Your task to perform on an android device: refresh tabs in the chrome app Image 0: 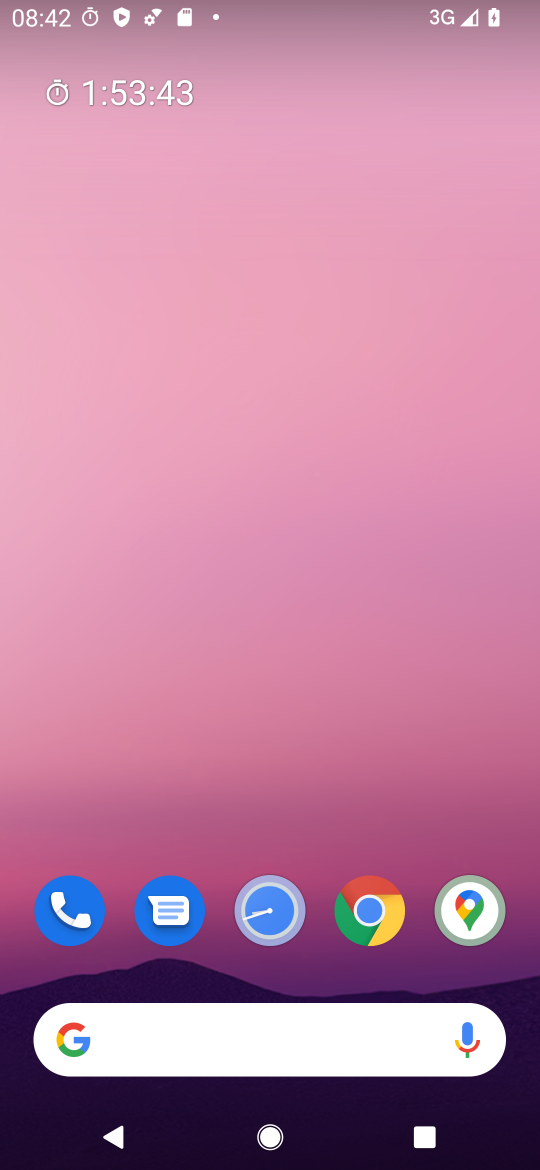
Step 0: drag from (236, 1008) to (304, 85)
Your task to perform on an android device: refresh tabs in the chrome app Image 1: 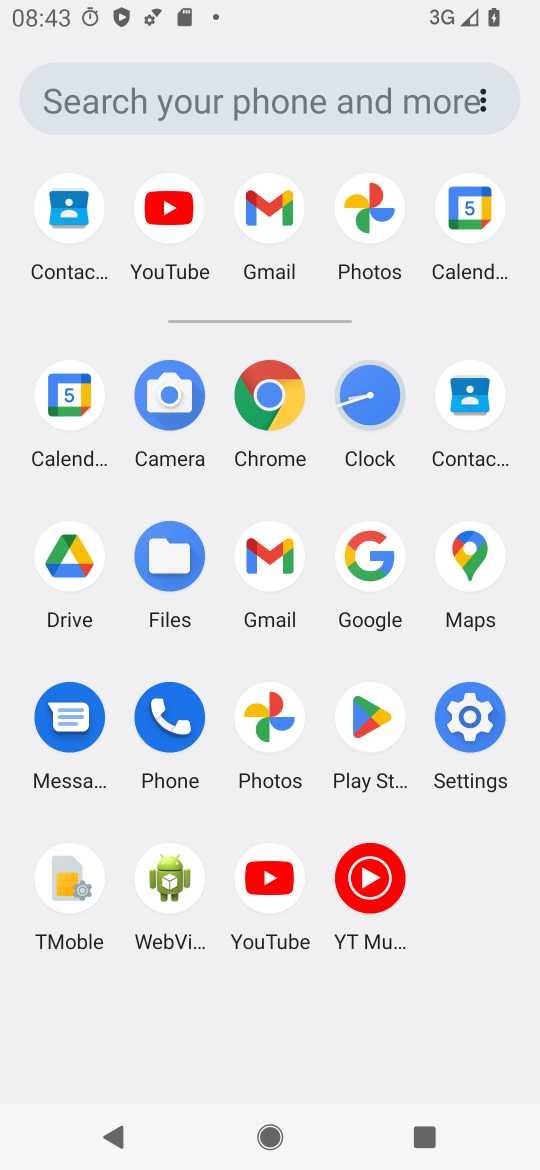
Step 1: click (272, 393)
Your task to perform on an android device: refresh tabs in the chrome app Image 2: 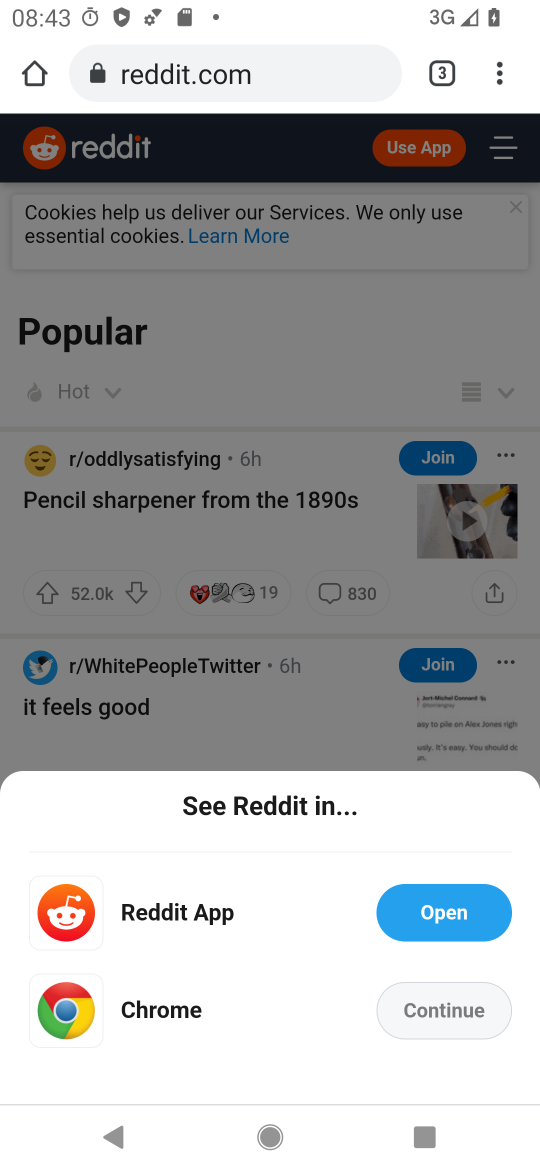
Step 2: click (491, 71)
Your task to perform on an android device: refresh tabs in the chrome app Image 3: 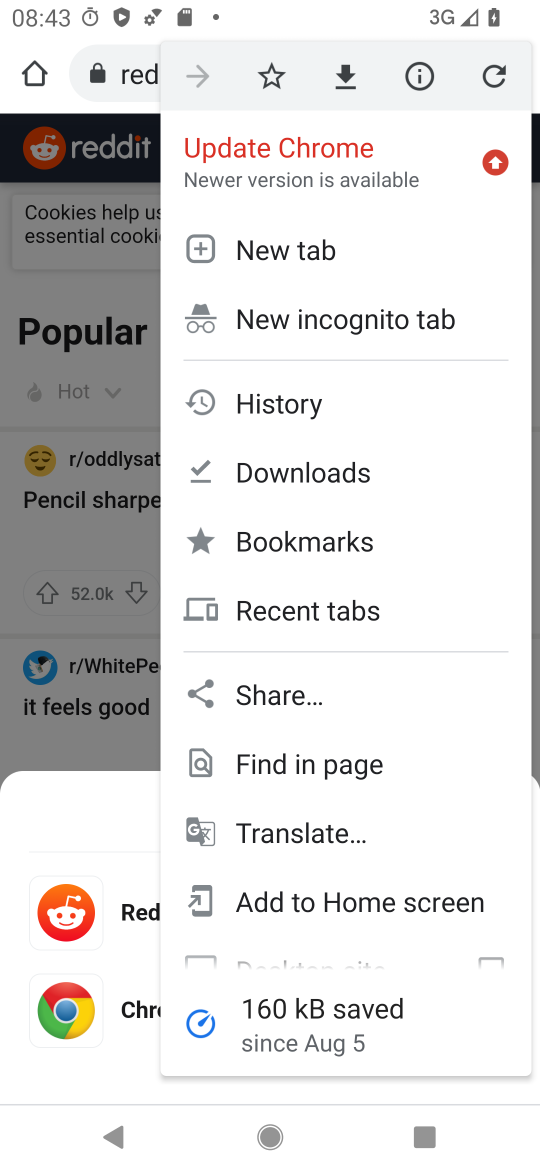
Step 3: click (488, 82)
Your task to perform on an android device: refresh tabs in the chrome app Image 4: 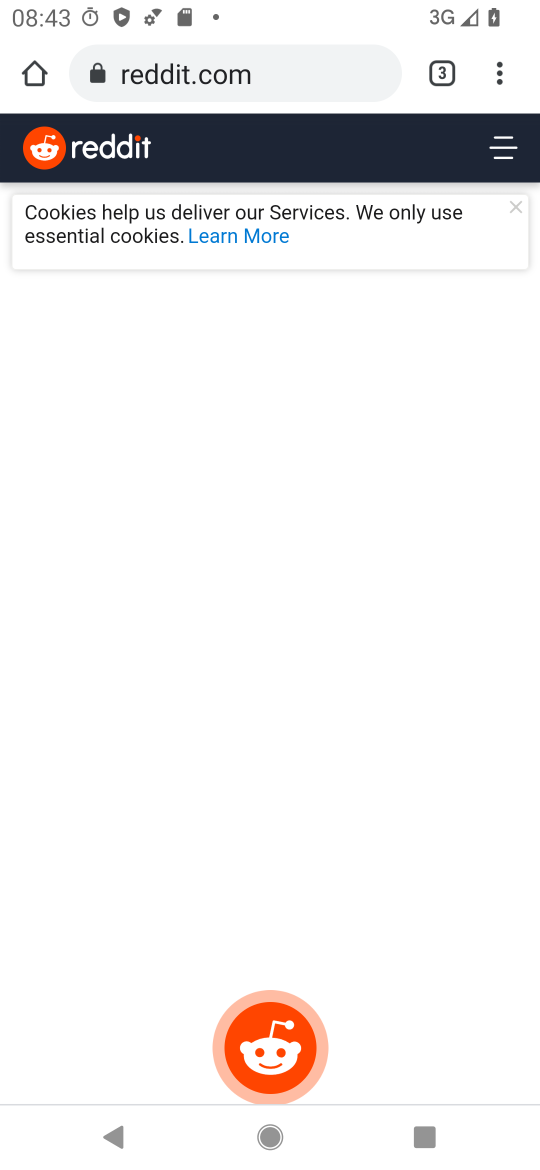
Step 4: task complete